Your task to perform on an android device: Show me recent news Image 0: 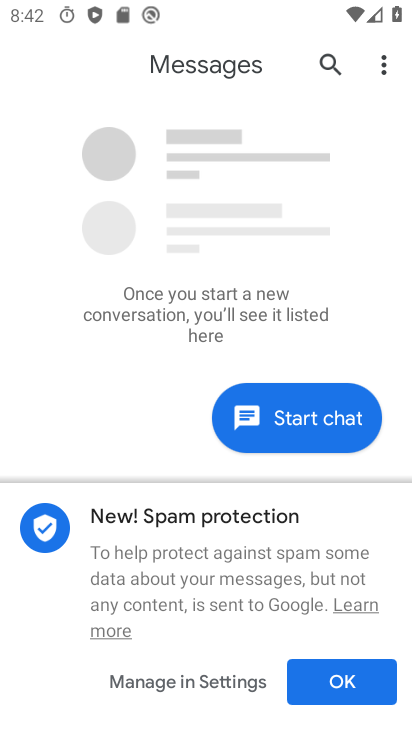
Step 0: press back button
Your task to perform on an android device: Show me recent news Image 1: 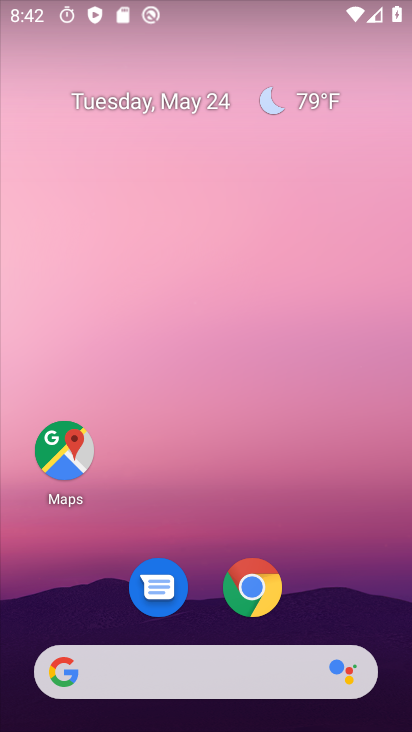
Step 1: drag from (324, 607) to (217, 103)
Your task to perform on an android device: Show me recent news Image 2: 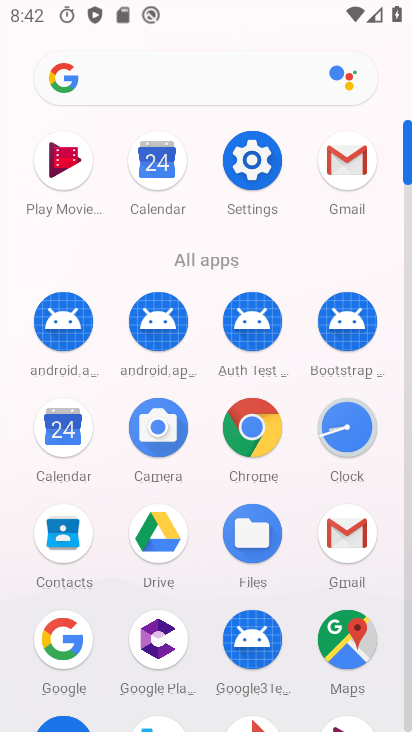
Step 2: click (58, 640)
Your task to perform on an android device: Show me recent news Image 3: 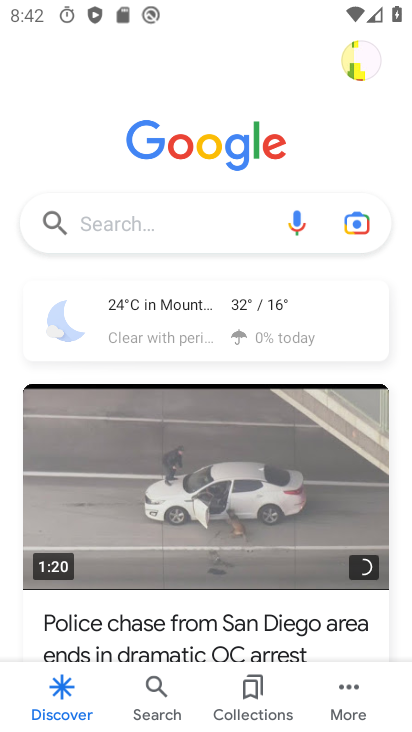
Step 3: click (182, 224)
Your task to perform on an android device: Show me recent news Image 4: 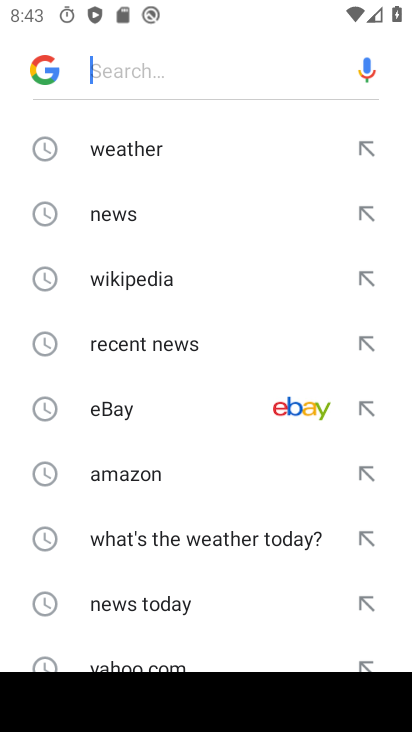
Step 4: type "recent news"
Your task to perform on an android device: Show me recent news Image 5: 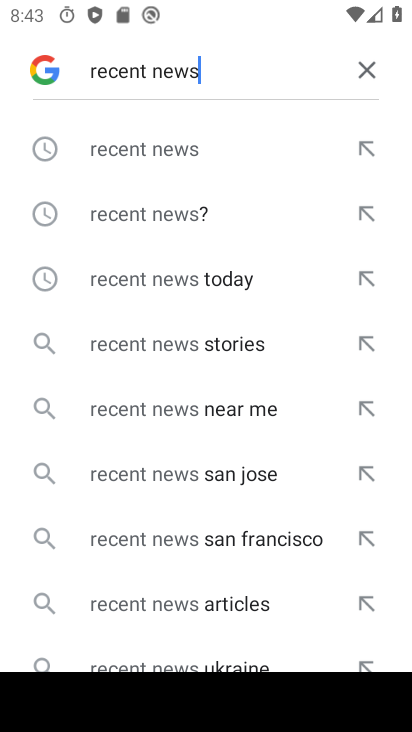
Step 5: click (174, 154)
Your task to perform on an android device: Show me recent news Image 6: 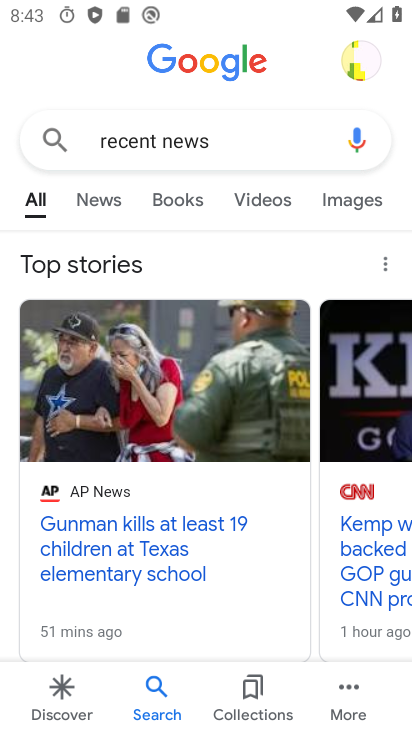
Step 6: task complete